Your task to perform on an android device: Show me productivity apps on the Play Store Image 0: 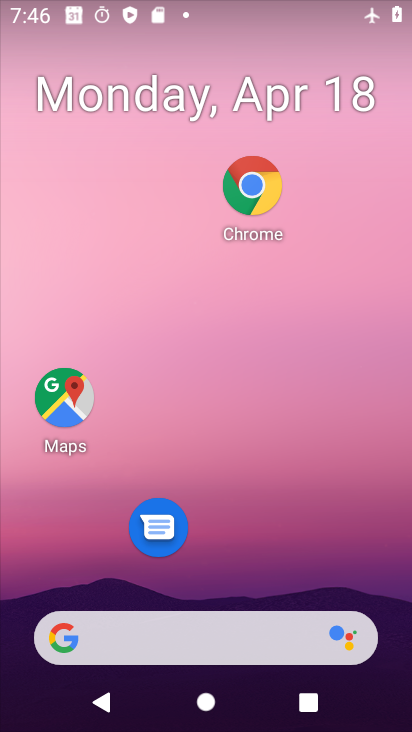
Step 0: drag from (262, 533) to (271, 227)
Your task to perform on an android device: Show me productivity apps on the Play Store Image 1: 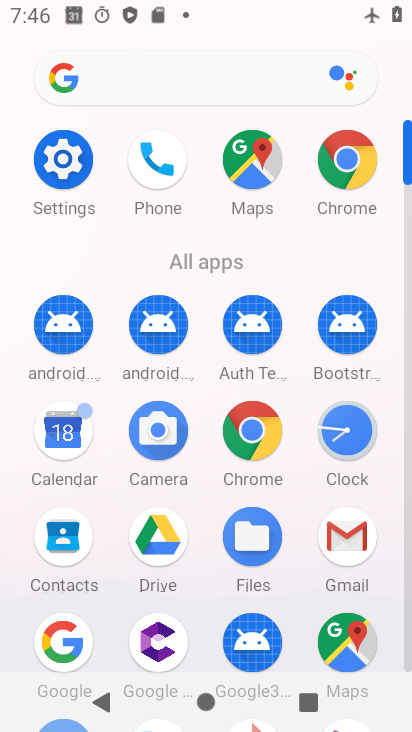
Step 1: drag from (236, 592) to (248, 199)
Your task to perform on an android device: Show me productivity apps on the Play Store Image 2: 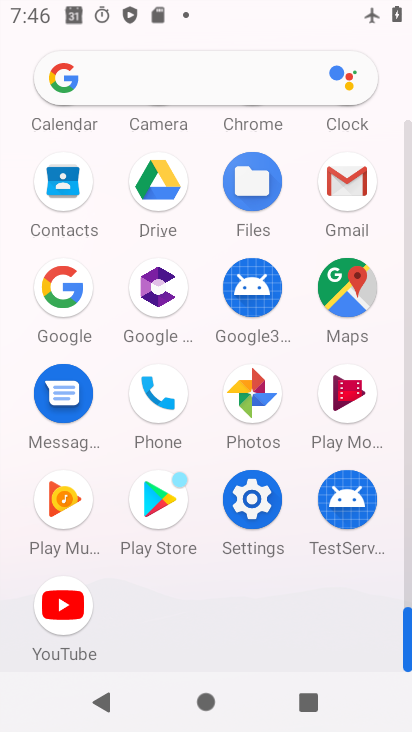
Step 2: click (148, 510)
Your task to perform on an android device: Show me productivity apps on the Play Store Image 3: 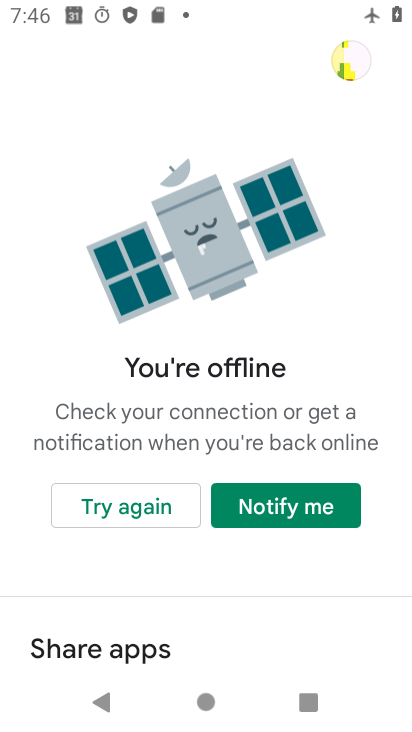
Step 3: click (122, 501)
Your task to perform on an android device: Show me productivity apps on the Play Store Image 4: 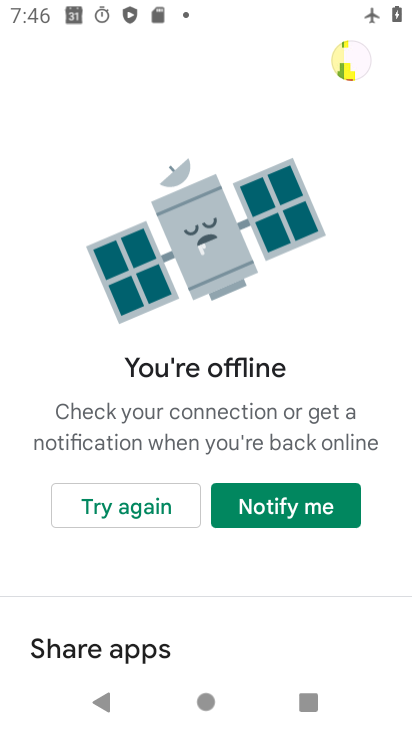
Step 4: click (128, 512)
Your task to perform on an android device: Show me productivity apps on the Play Store Image 5: 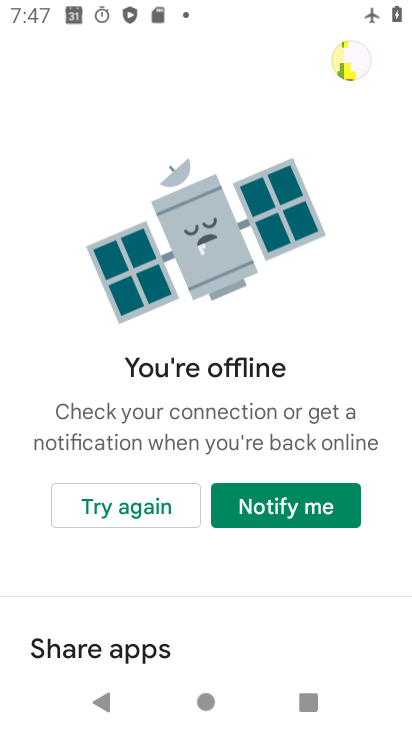
Step 5: click (254, 501)
Your task to perform on an android device: Show me productivity apps on the Play Store Image 6: 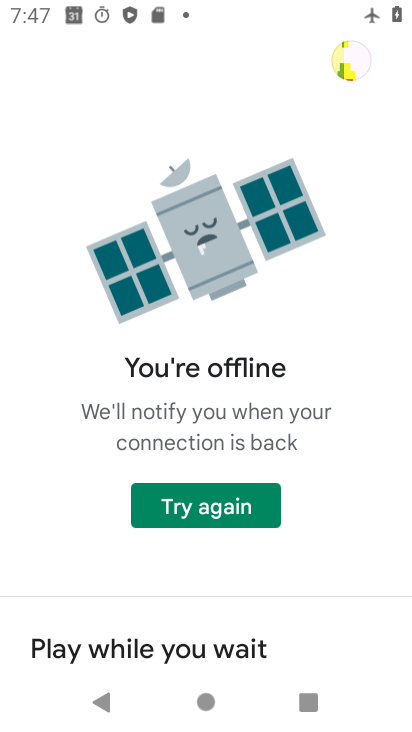
Step 6: click (242, 507)
Your task to perform on an android device: Show me productivity apps on the Play Store Image 7: 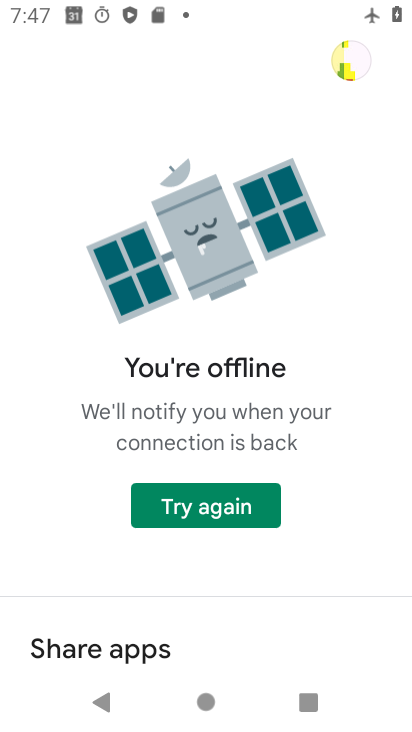
Step 7: task complete